Your task to perform on an android device: Go to CNN.com Image 0: 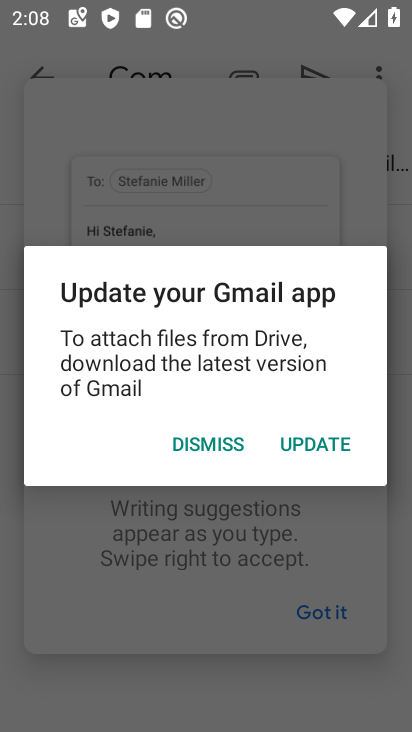
Step 0: press home button
Your task to perform on an android device: Go to CNN.com Image 1: 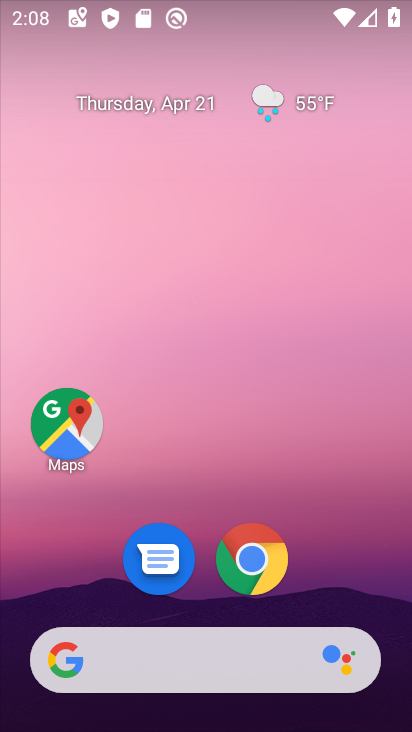
Step 1: drag from (207, 444) to (210, 110)
Your task to perform on an android device: Go to CNN.com Image 2: 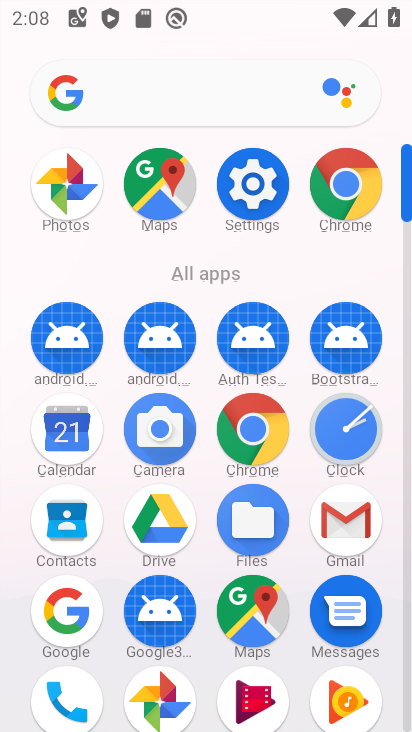
Step 2: click (67, 611)
Your task to perform on an android device: Go to CNN.com Image 3: 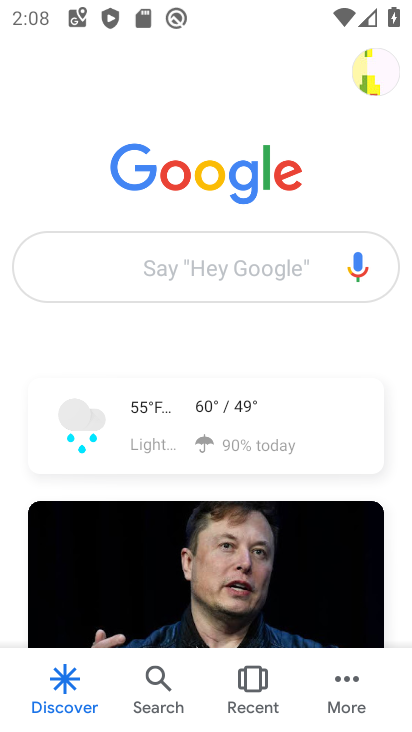
Step 3: click (185, 270)
Your task to perform on an android device: Go to CNN.com Image 4: 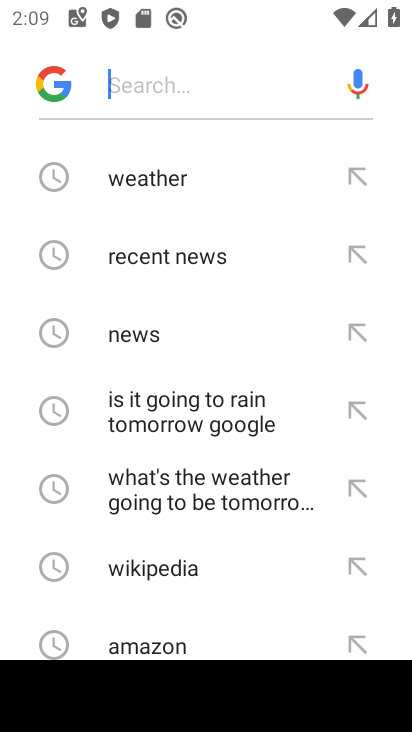
Step 4: type "cnn.com"
Your task to perform on an android device: Go to CNN.com Image 5: 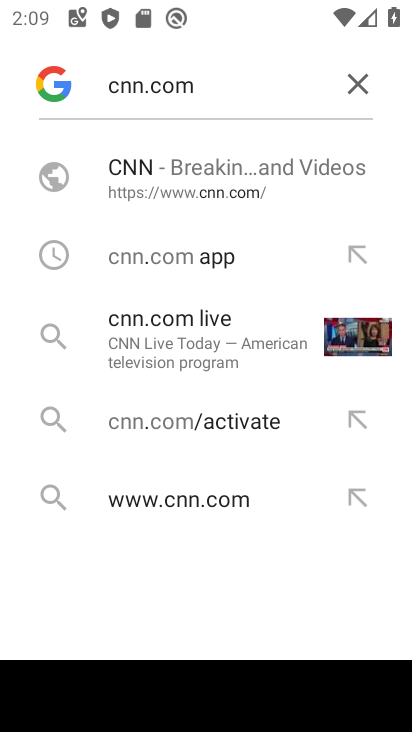
Step 5: click (179, 500)
Your task to perform on an android device: Go to CNN.com Image 6: 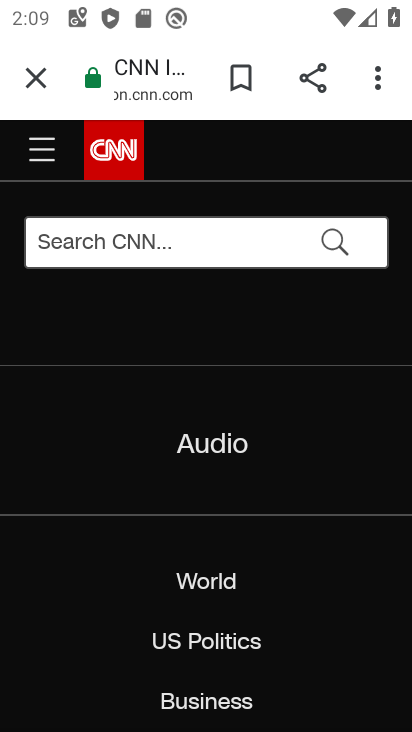
Step 6: task complete